Your task to perform on an android device: Open location settings Image 0: 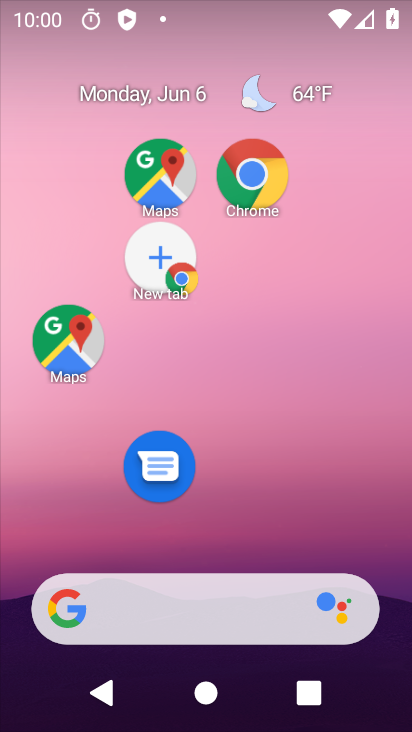
Step 0: drag from (263, 718) to (169, 309)
Your task to perform on an android device: Open location settings Image 1: 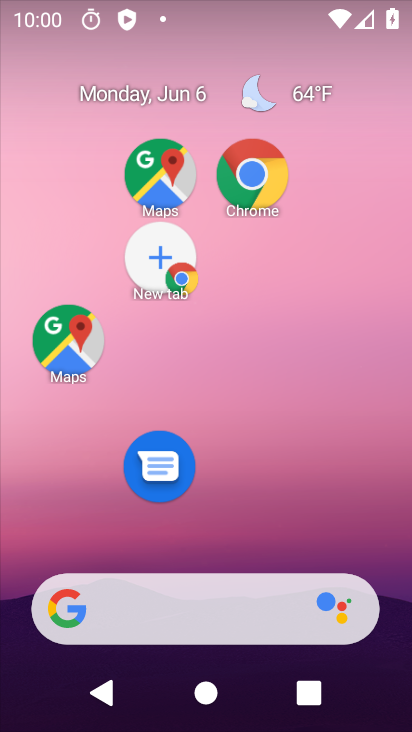
Step 1: drag from (279, 666) to (223, 264)
Your task to perform on an android device: Open location settings Image 2: 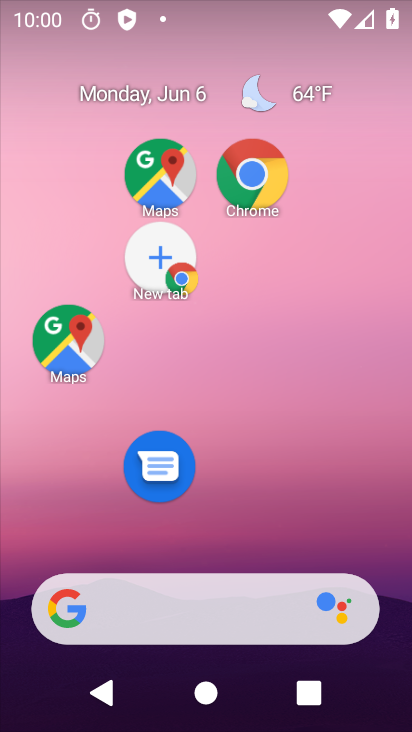
Step 2: drag from (276, 657) to (268, 285)
Your task to perform on an android device: Open location settings Image 3: 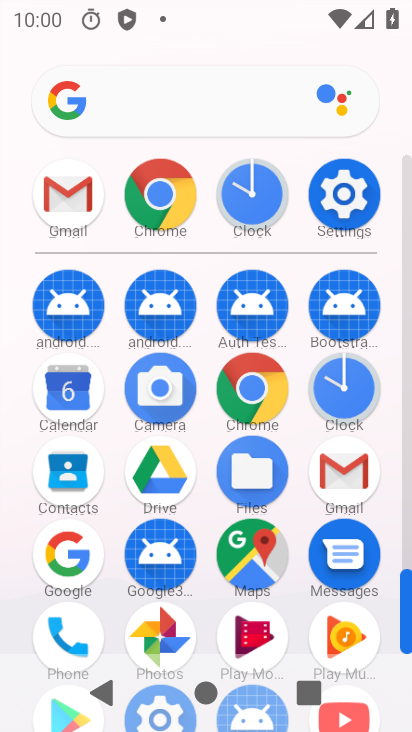
Step 3: click (223, 236)
Your task to perform on an android device: Open location settings Image 4: 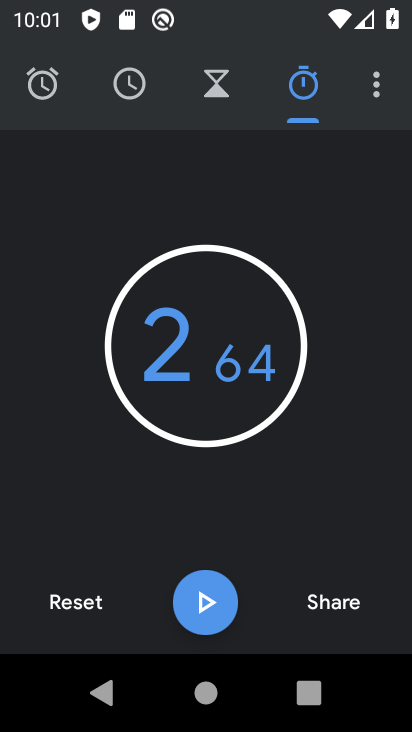
Step 4: click (348, 183)
Your task to perform on an android device: Open location settings Image 5: 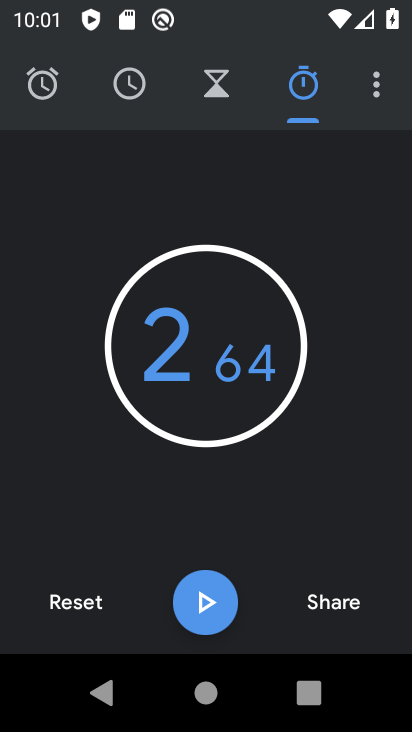
Step 5: press back button
Your task to perform on an android device: Open location settings Image 6: 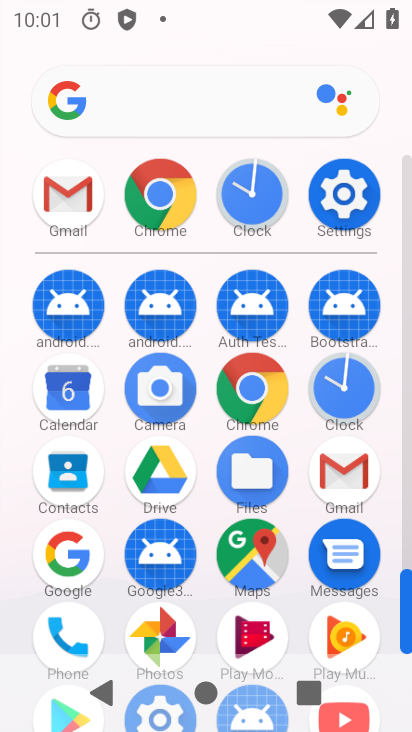
Step 6: click (333, 218)
Your task to perform on an android device: Open location settings Image 7: 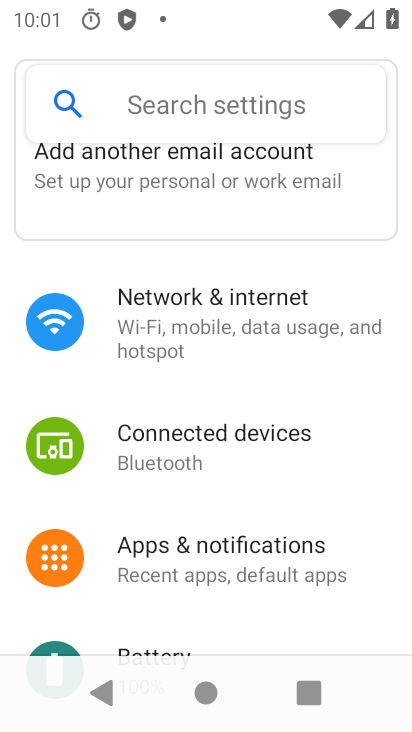
Step 7: drag from (235, 577) to (192, 271)
Your task to perform on an android device: Open location settings Image 8: 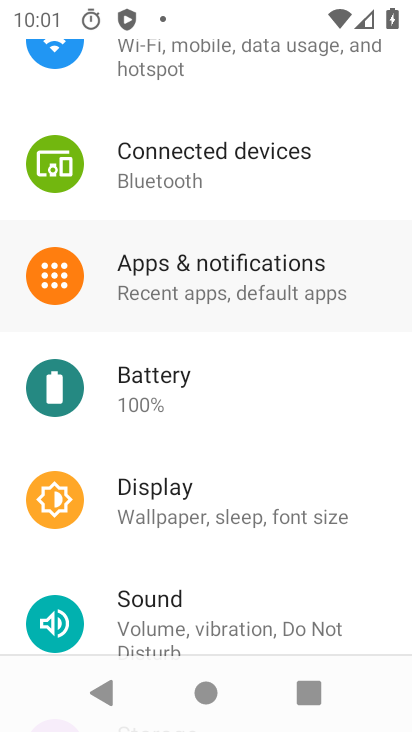
Step 8: drag from (169, 461) to (145, 252)
Your task to perform on an android device: Open location settings Image 9: 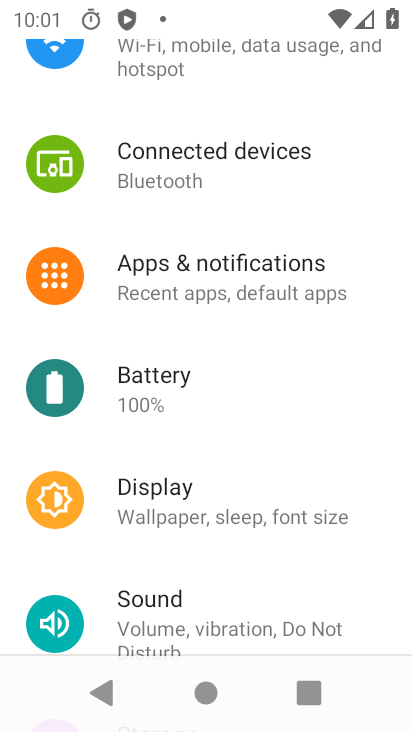
Step 9: drag from (204, 586) to (203, 233)
Your task to perform on an android device: Open location settings Image 10: 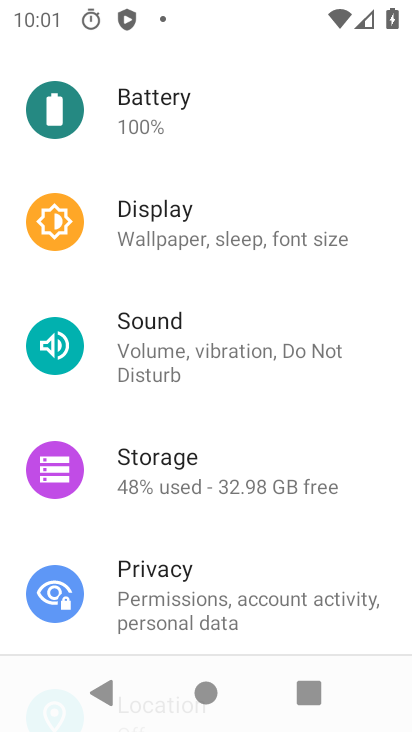
Step 10: drag from (250, 509) to (224, 242)
Your task to perform on an android device: Open location settings Image 11: 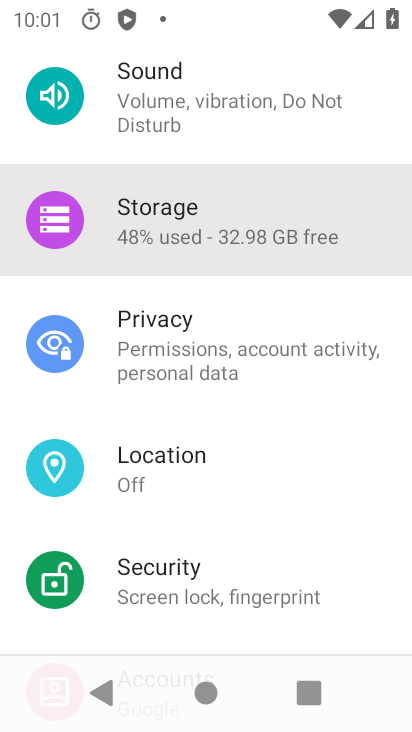
Step 11: drag from (225, 550) to (225, 353)
Your task to perform on an android device: Open location settings Image 12: 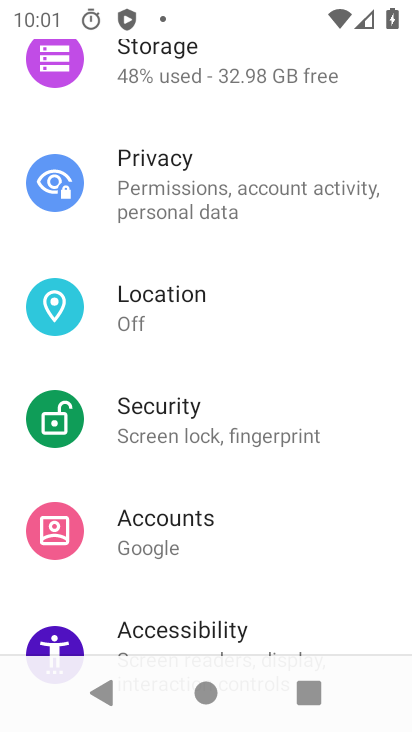
Step 12: click (136, 307)
Your task to perform on an android device: Open location settings Image 13: 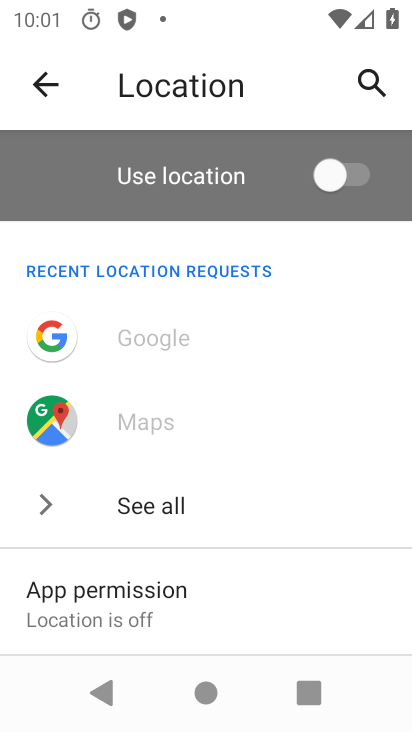
Step 13: task complete